Your task to perform on an android device: delete a single message in the gmail app Image 0: 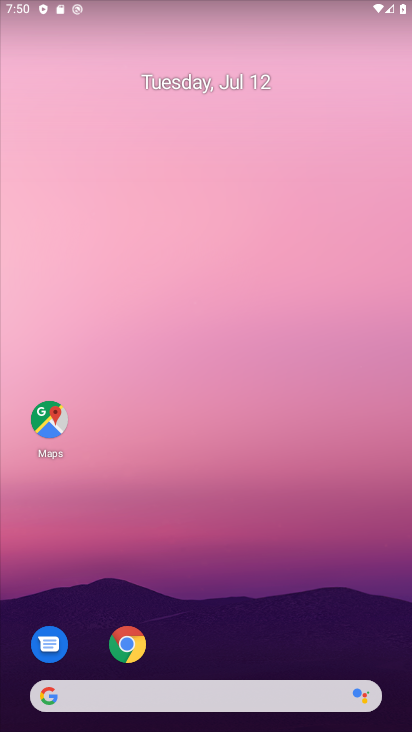
Step 0: press home button
Your task to perform on an android device: delete a single message in the gmail app Image 1: 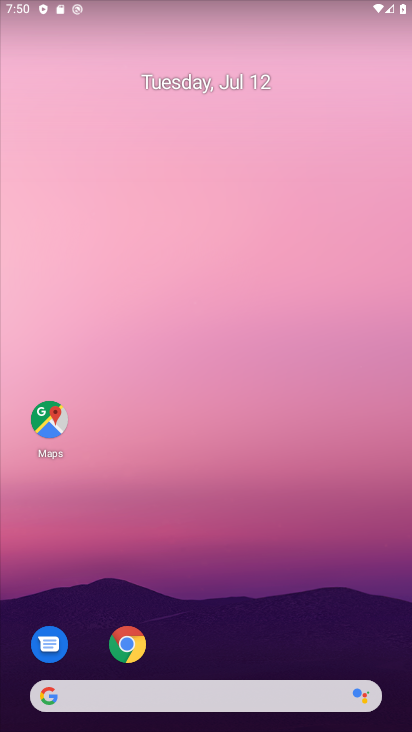
Step 1: drag from (221, 658) to (313, 101)
Your task to perform on an android device: delete a single message in the gmail app Image 2: 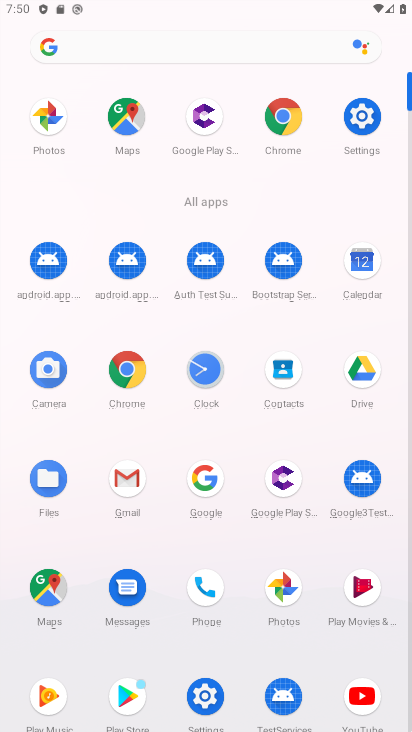
Step 2: click (129, 477)
Your task to perform on an android device: delete a single message in the gmail app Image 3: 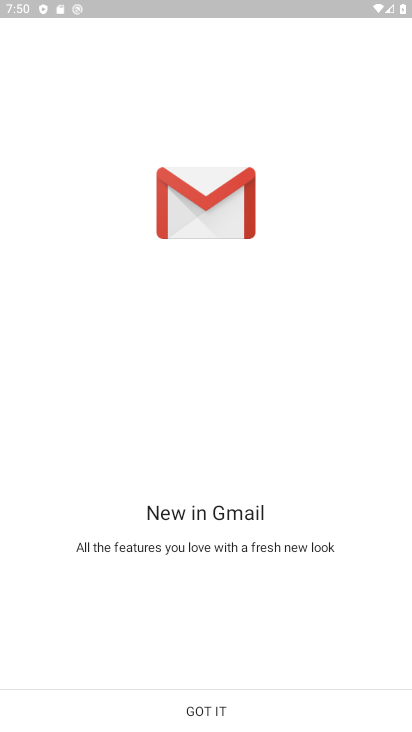
Step 3: click (218, 709)
Your task to perform on an android device: delete a single message in the gmail app Image 4: 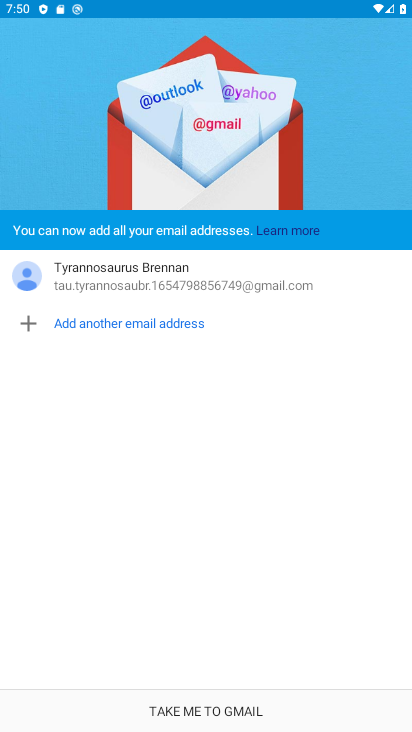
Step 4: click (223, 723)
Your task to perform on an android device: delete a single message in the gmail app Image 5: 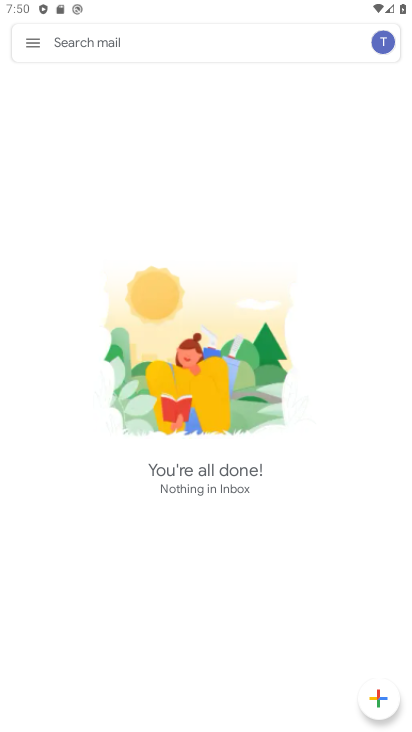
Step 5: task complete